Your task to perform on an android device: see tabs open on other devices in the chrome app Image 0: 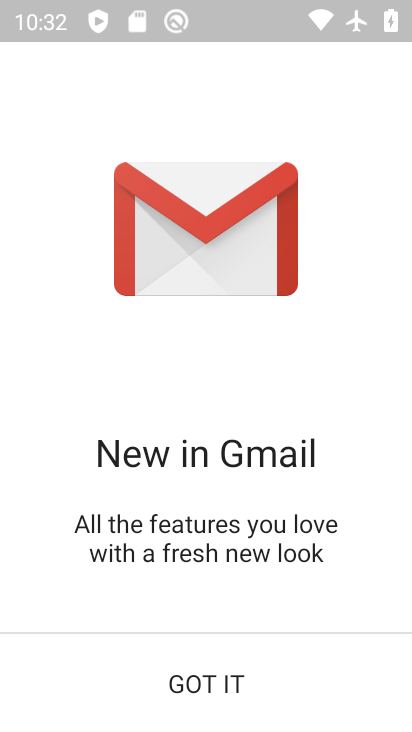
Step 0: press back button
Your task to perform on an android device: see tabs open on other devices in the chrome app Image 1: 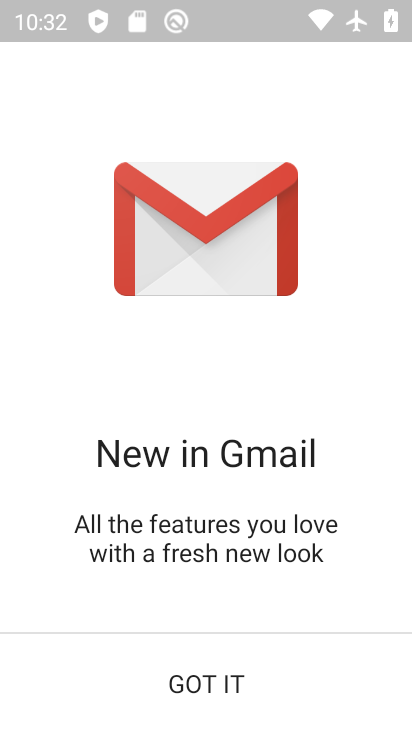
Step 1: press back button
Your task to perform on an android device: see tabs open on other devices in the chrome app Image 2: 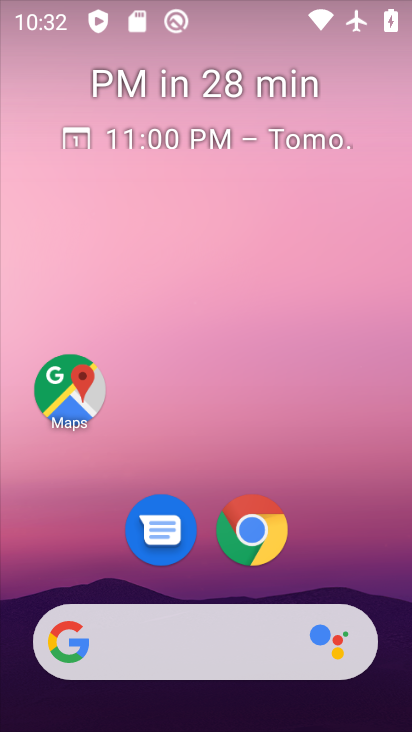
Step 2: press back button
Your task to perform on an android device: see tabs open on other devices in the chrome app Image 3: 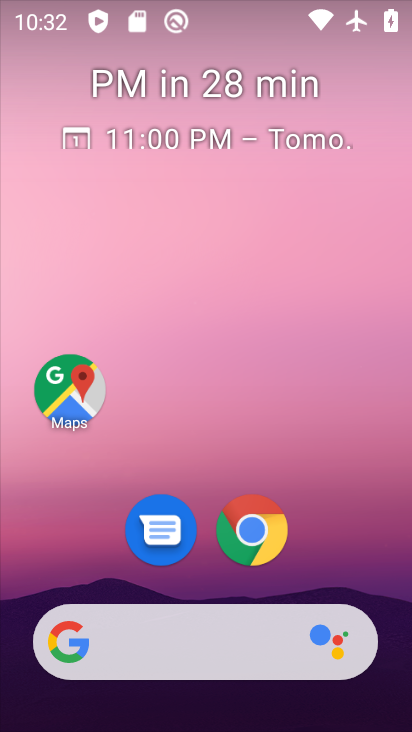
Step 3: press back button
Your task to perform on an android device: see tabs open on other devices in the chrome app Image 4: 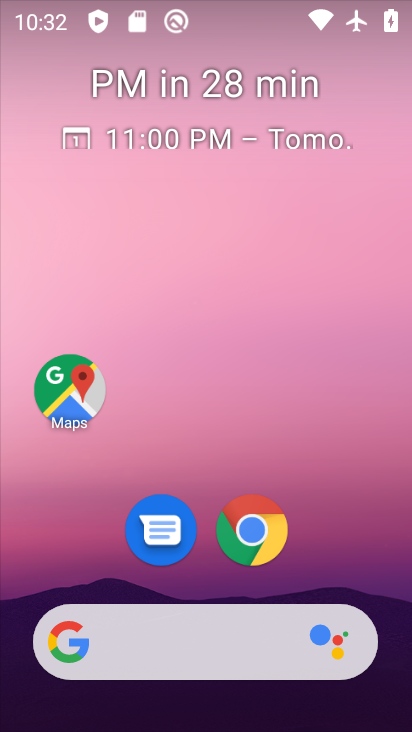
Step 4: drag from (98, 125) to (41, 11)
Your task to perform on an android device: see tabs open on other devices in the chrome app Image 5: 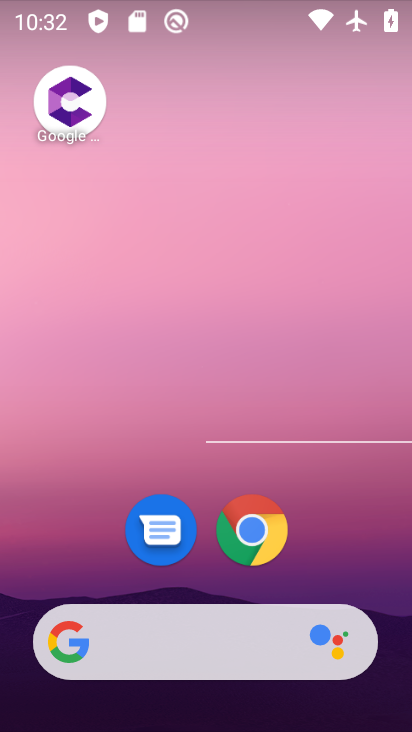
Step 5: drag from (292, 511) to (87, 56)
Your task to perform on an android device: see tabs open on other devices in the chrome app Image 6: 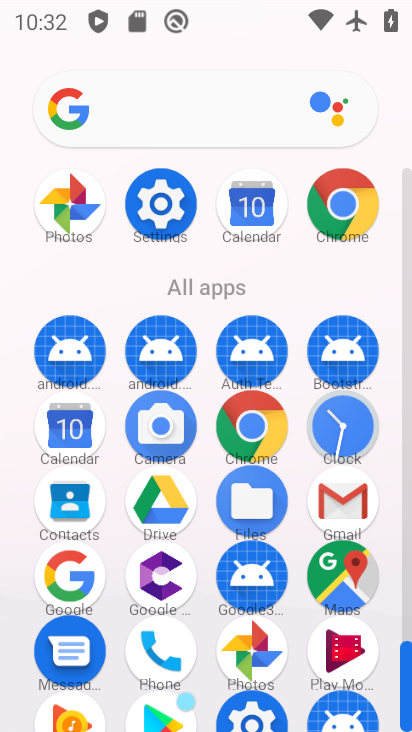
Step 6: click (392, 189)
Your task to perform on an android device: see tabs open on other devices in the chrome app Image 7: 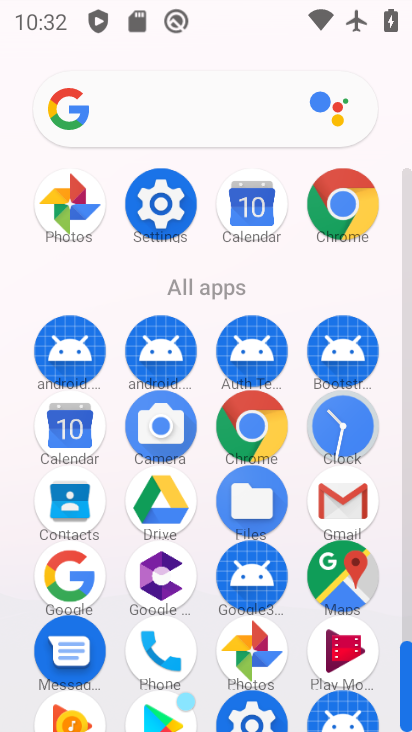
Step 7: click (355, 198)
Your task to perform on an android device: see tabs open on other devices in the chrome app Image 8: 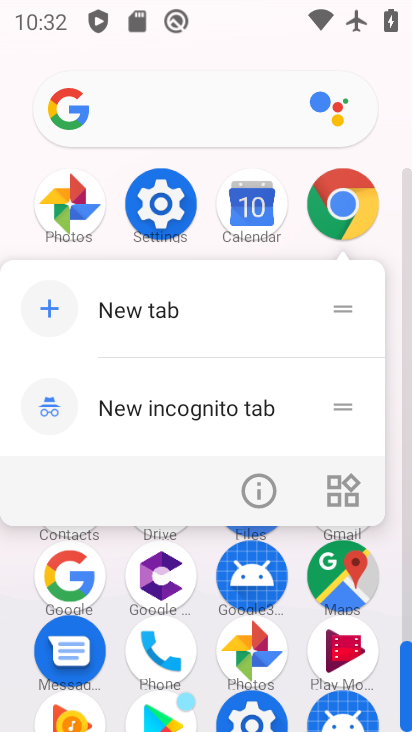
Step 8: click (342, 203)
Your task to perform on an android device: see tabs open on other devices in the chrome app Image 9: 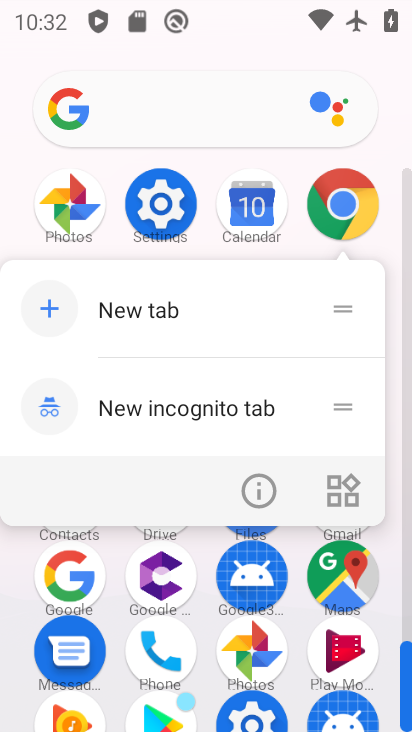
Step 9: click (342, 203)
Your task to perform on an android device: see tabs open on other devices in the chrome app Image 10: 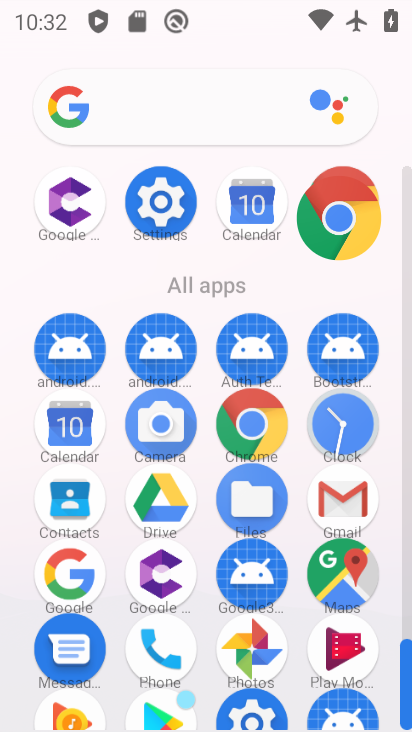
Step 10: click (342, 203)
Your task to perform on an android device: see tabs open on other devices in the chrome app Image 11: 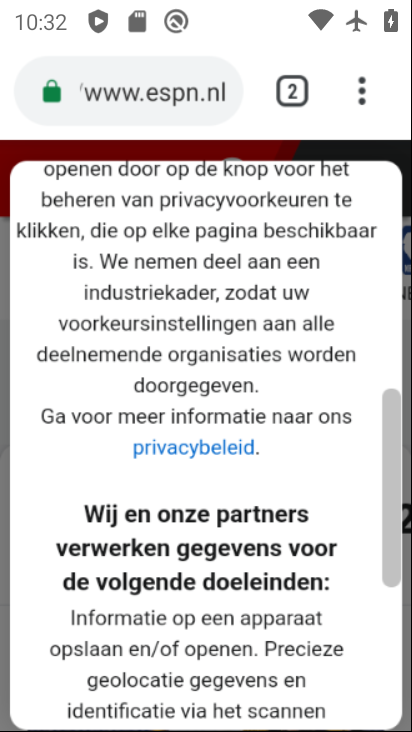
Step 11: click (342, 205)
Your task to perform on an android device: see tabs open on other devices in the chrome app Image 12: 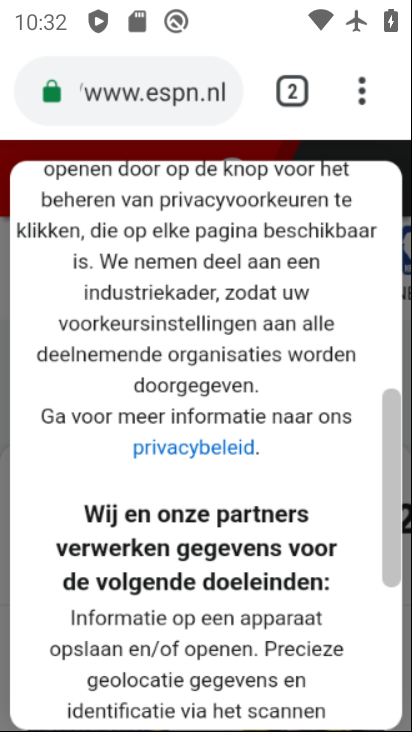
Step 12: click (342, 209)
Your task to perform on an android device: see tabs open on other devices in the chrome app Image 13: 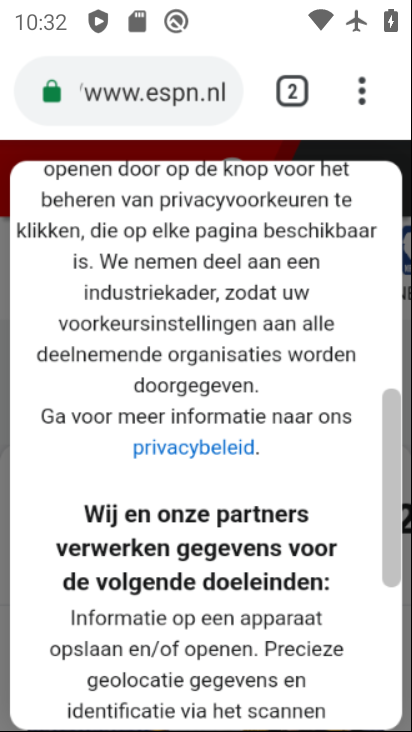
Step 13: click (342, 209)
Your task to perform on an android device: see tabs open on other devices in the chrome app Image 14: 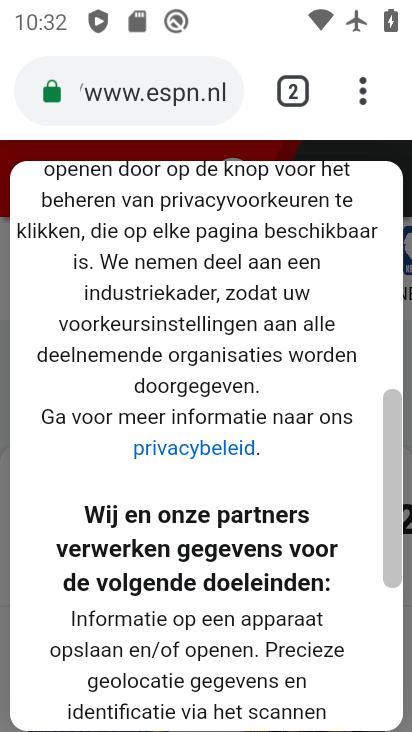
Step 14: drag from (366, 90) to (82, 420)
Your task to perform on an android device: see tabs open on other devices in the chrome app Image 15: 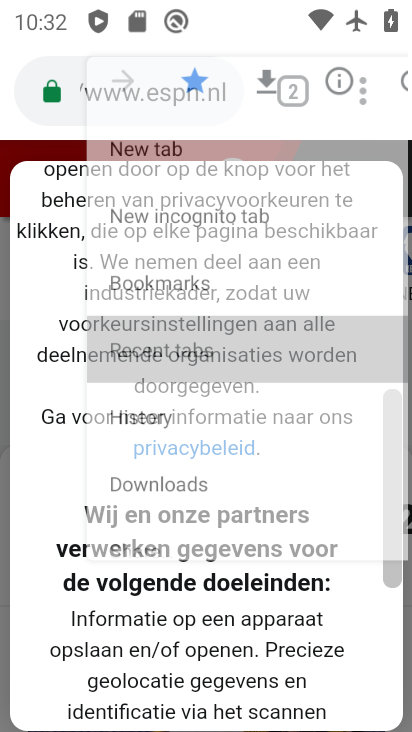
Step 15: click (82, 420)
Your task to perform on an android device: see tabs open on other devices in the chrome app Image 16: 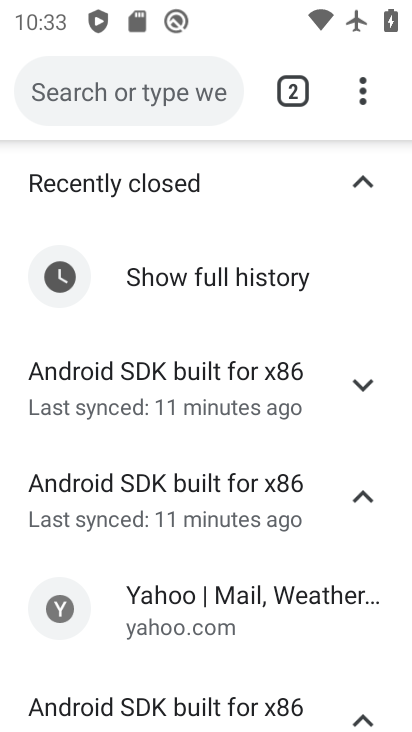
Step 16: drag from (357, 87) to (92, 264)
Your task to perform on an android device: see tabs open on other devices in the chrome app Image 17: 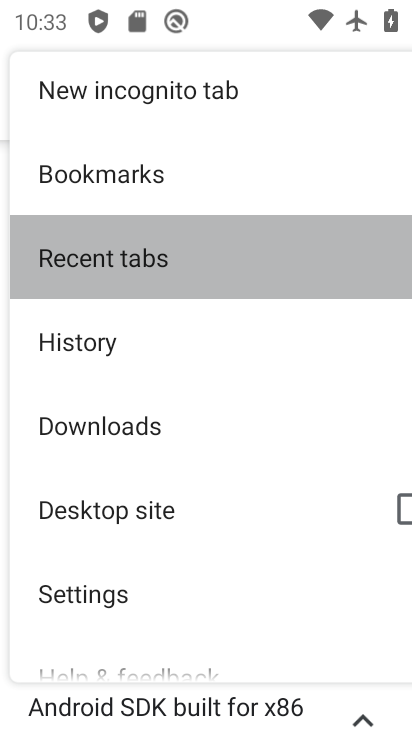
Step 17: click (92, 264)
Your task to perform on an android device: see tabs open on other devices in the chrome app Image 18: 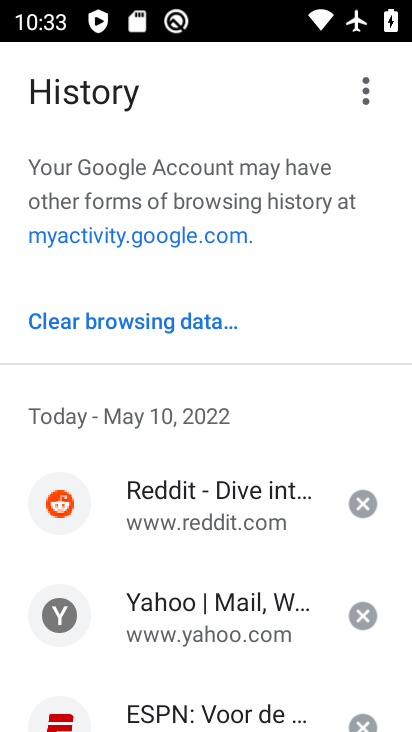
Step 18: press back button
Your task to perform on an android device: see tabs open on other devices in the chrome app Image 19: 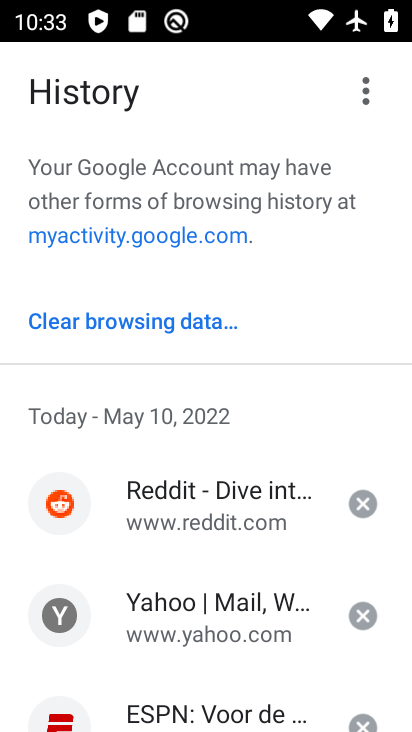
Step 19: press back button
Your task to perform on an android device: see tabs open on other devices in the chrome app Image 20: 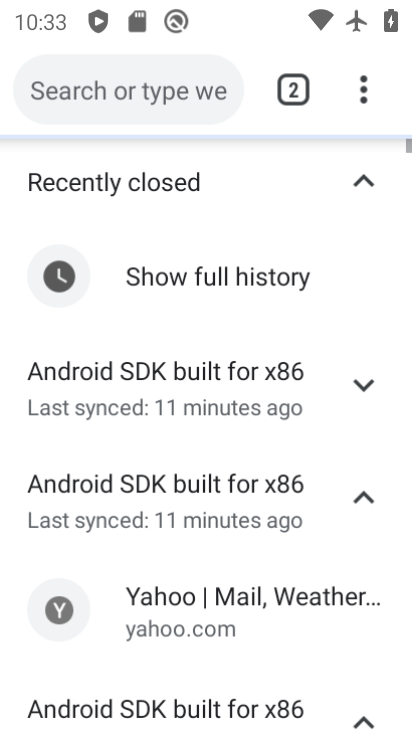
Step 20: press back button
Your task to perform on an android device: see tabs open on other devices in the chrome app Image 21: 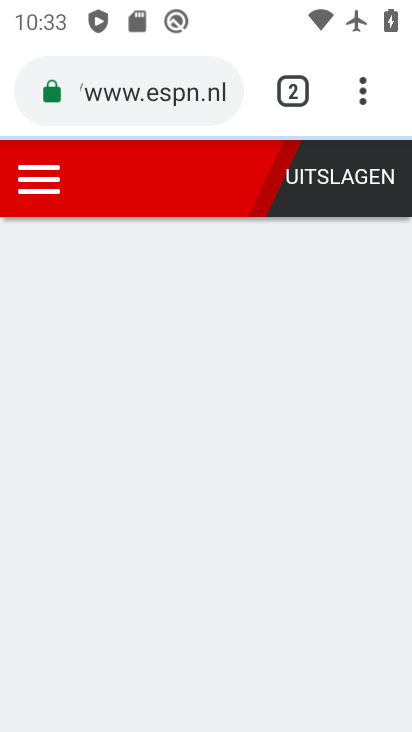
Step 21: press home button
Your task to perform on an android device: see tabs open on other devices in the chrome app Image 22: 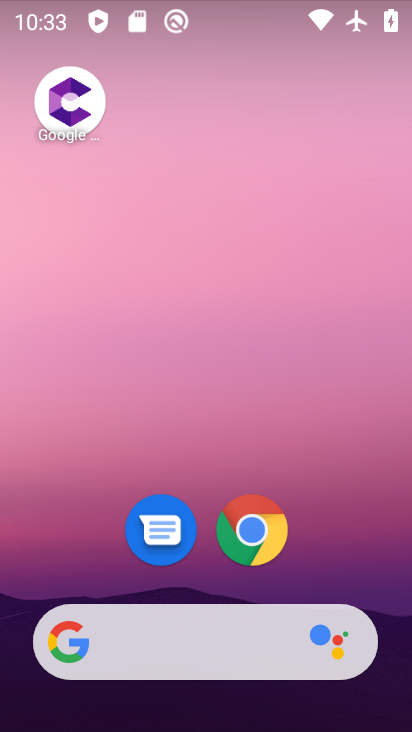
Step 22: drag from (337, 564) to (58, 38)
Your task to perform on an android device: see tabs open on other devices in the chrome app Image 23: 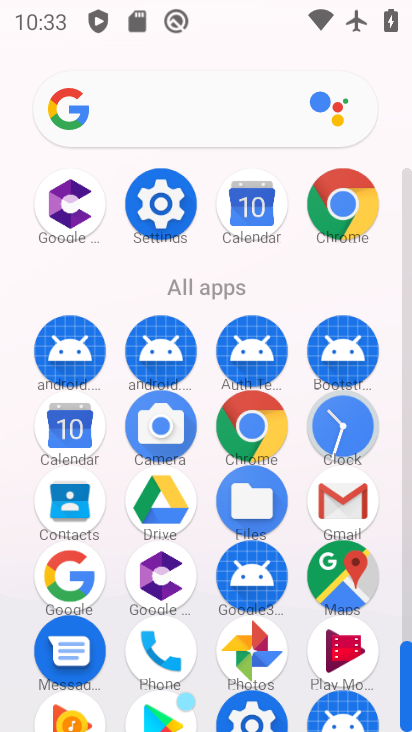
Step 23: click (336, 183)
Your task to perform on an android device: see tabs open on other devices in the chrome app Image 24: 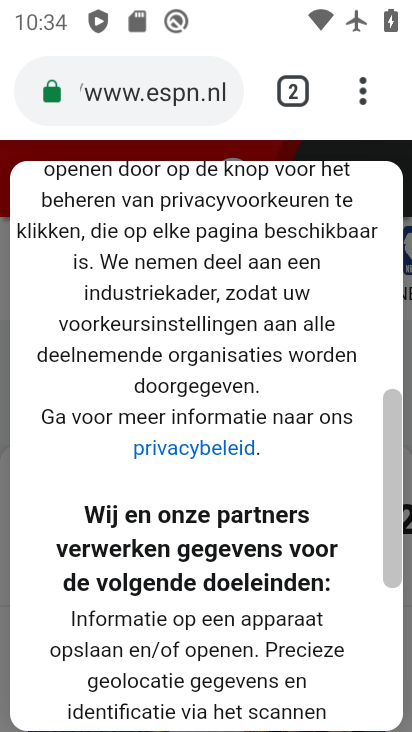
Step 24: drag from (357, 93) to (70, 385)
Your task to perform on an android device: see tabs open on other devices in the chrome app Image 25: 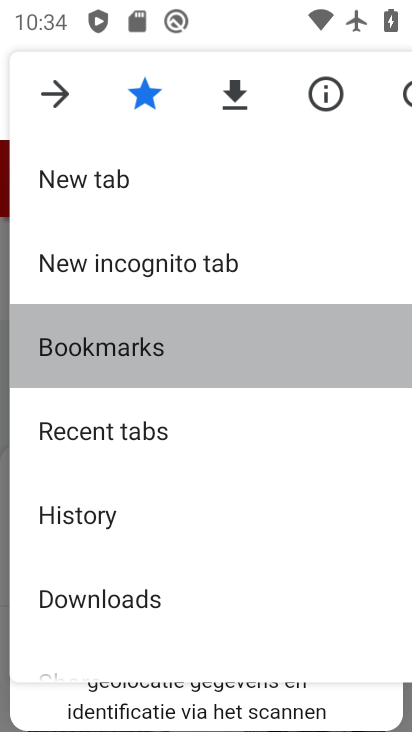
Step 25: drag from (70, 385) to (75, 439)
Your task to perform on an android device: see tabs open on other devices in the chrome app Image 26: 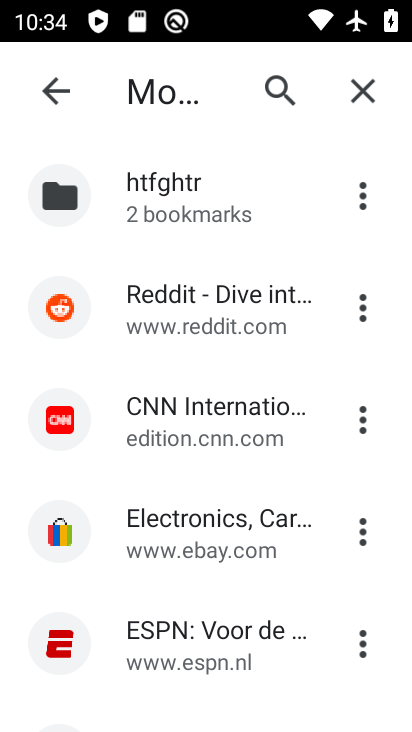
Step 26: click (51, 92)
Your task to perform on an android device: see tabs open on other devices in the chrome app Image 27: 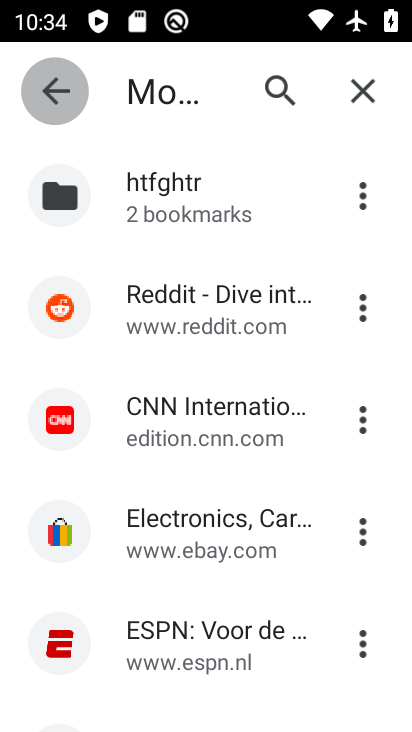
Step 27: click (50, 92)
Your task to perform on an android device: see tabs open on other devices in the chrome app Image 28: 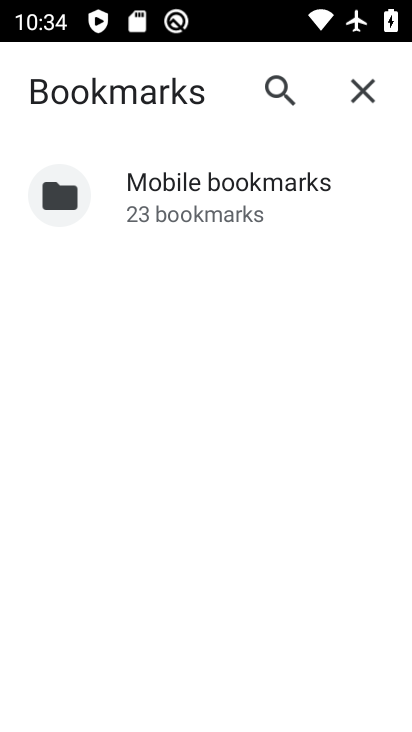
Step 28: click (49, 93)
Your task to perform on an android device: see tabs open on other devices in the chrome app Image 29: 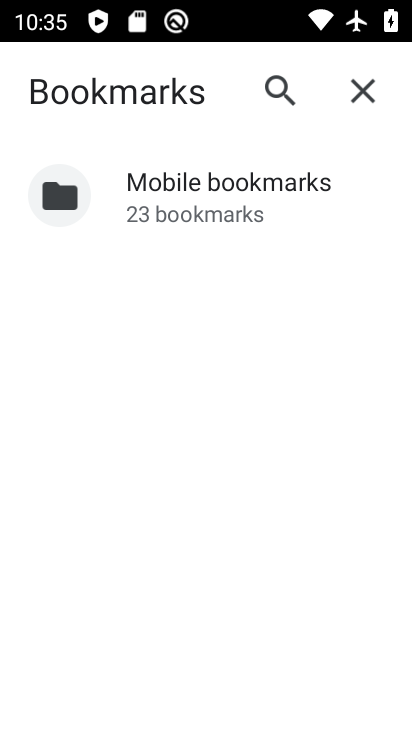
Step 29: task complete